Your task to perform on an android device: Open Google Maps and go to "Timeline" Image 0: 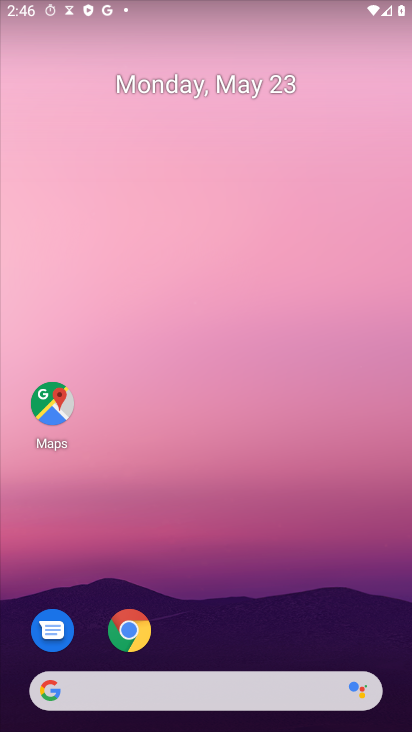
Step 0: drag from (361, 610) to (181, 11)
Your task to perform on an android device: Open Google Maps and go to "Timeline" Image 1: 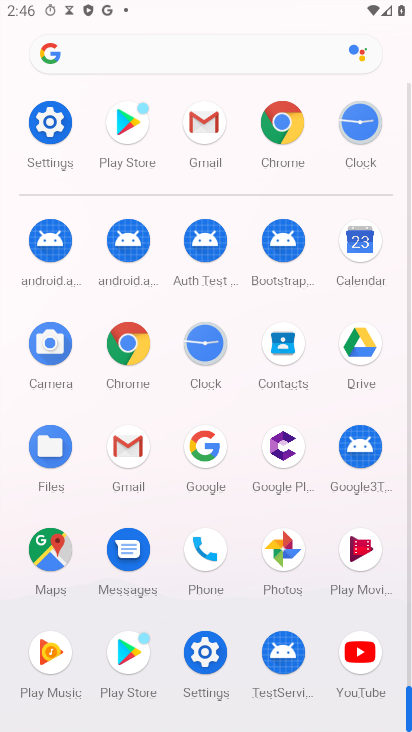
Step 1: click (46, 557)
Your task to perform on an android device: Open Google Maps and go to "Timeline" Image 2: 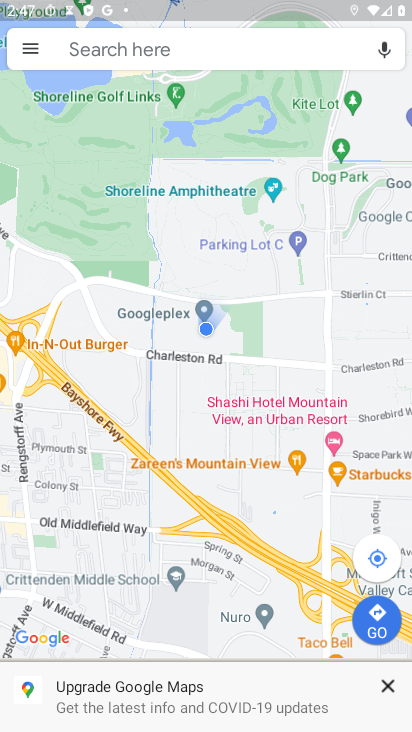
Step 2: click (30, 47)
Your task to perform on an android device: Open Google Maps and go to "Timeline" Image 3: 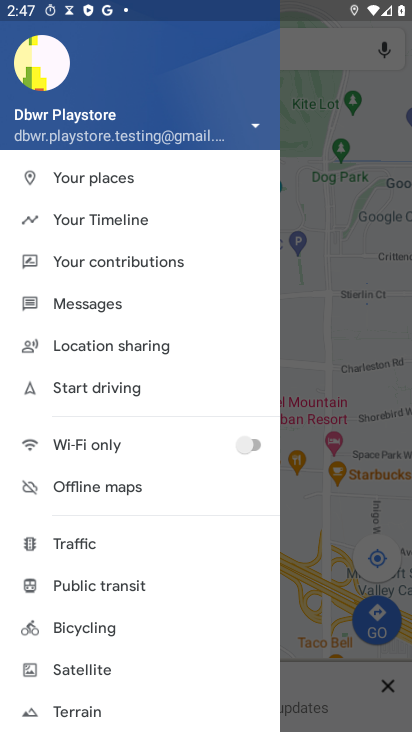
Step 3: click (39, 215)
Your task to perform on an android device: Open Google Maps and go to "Timeline" Image 4: 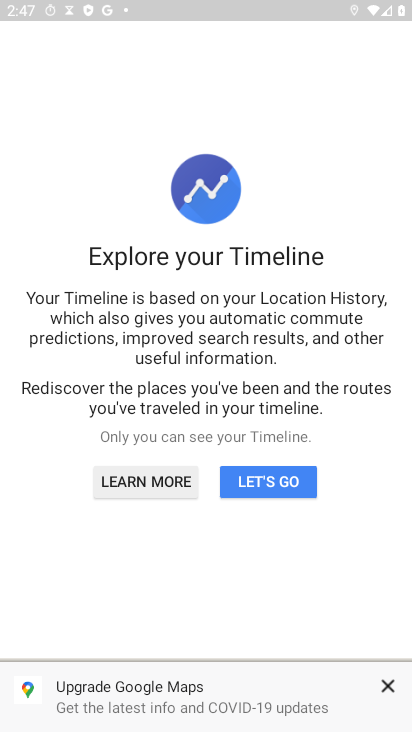
Step 4: click (271, 484)
Your task to perform on an android device: Open Google Maps and go to "Timeline" Image 5: 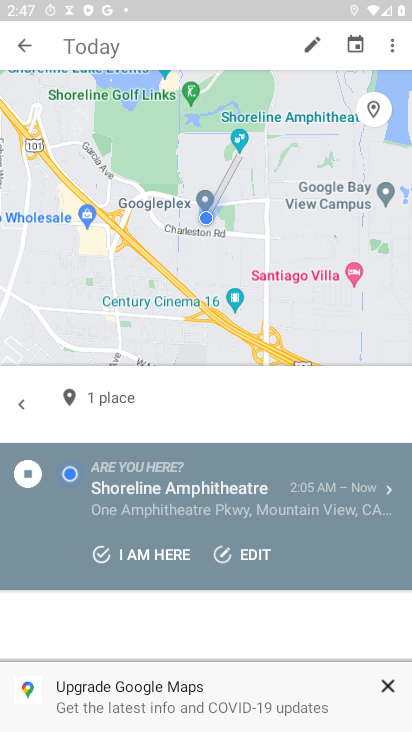
Step 5: task complete